Your task to perform on an android device: Show the shopping cart on bestbuy. Add razer nari to the cart on bestbuy Image 0: 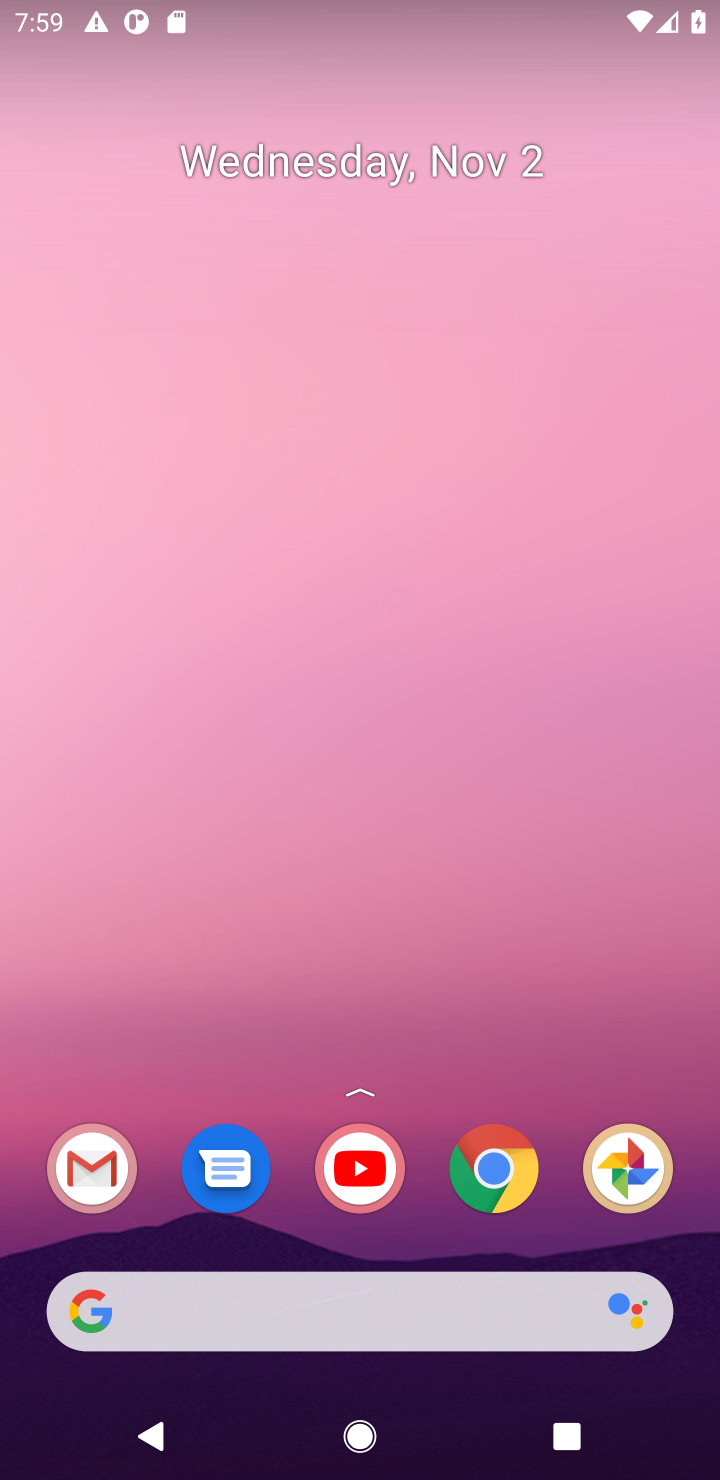
Step 0: click (497, 1168)
Your task to perform on an android device: Show the shopping cart on bestbuy. Add razer nari to the cart on bestbuy Image 1: 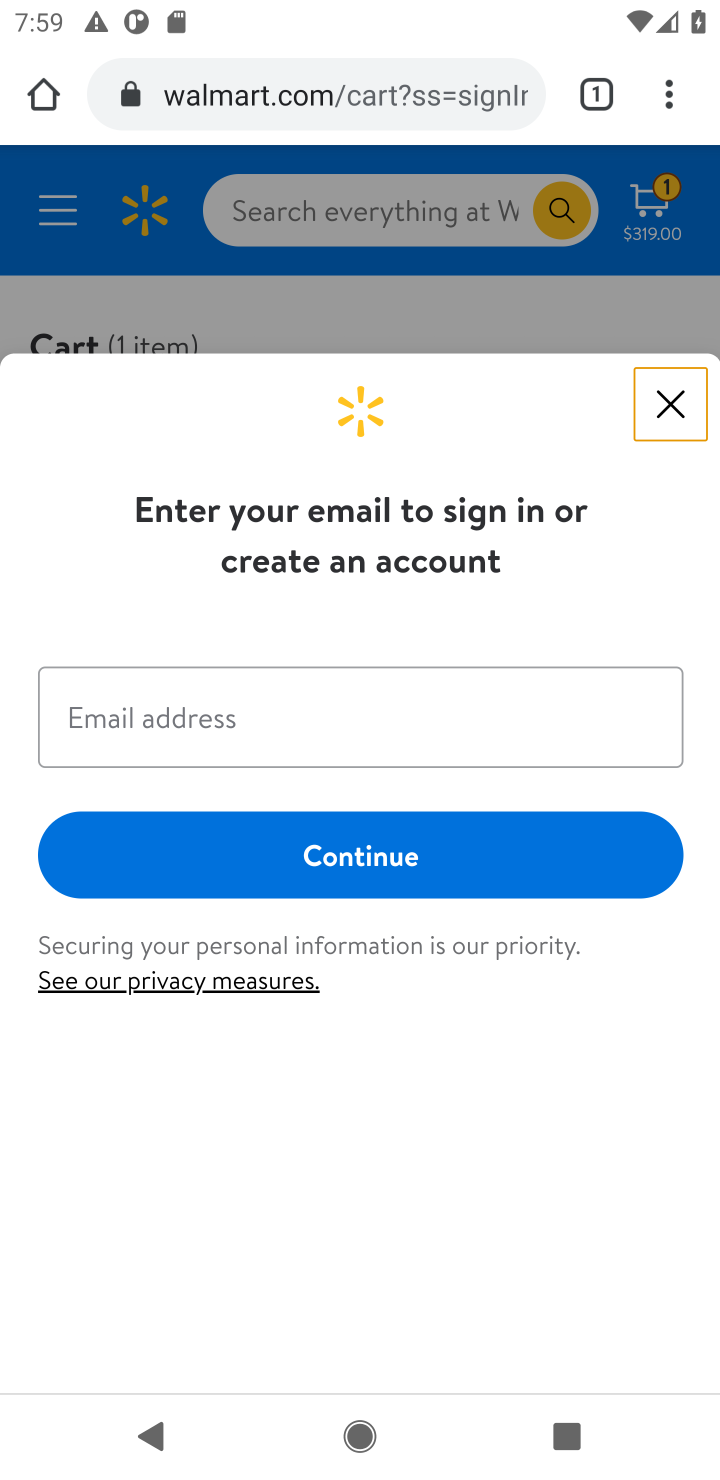
Step 1: click (464, 111)
Your task to perform on an android device: Show the shopping cart on bestbuy. Add razer nari to the cart on bestbuy Image 2: 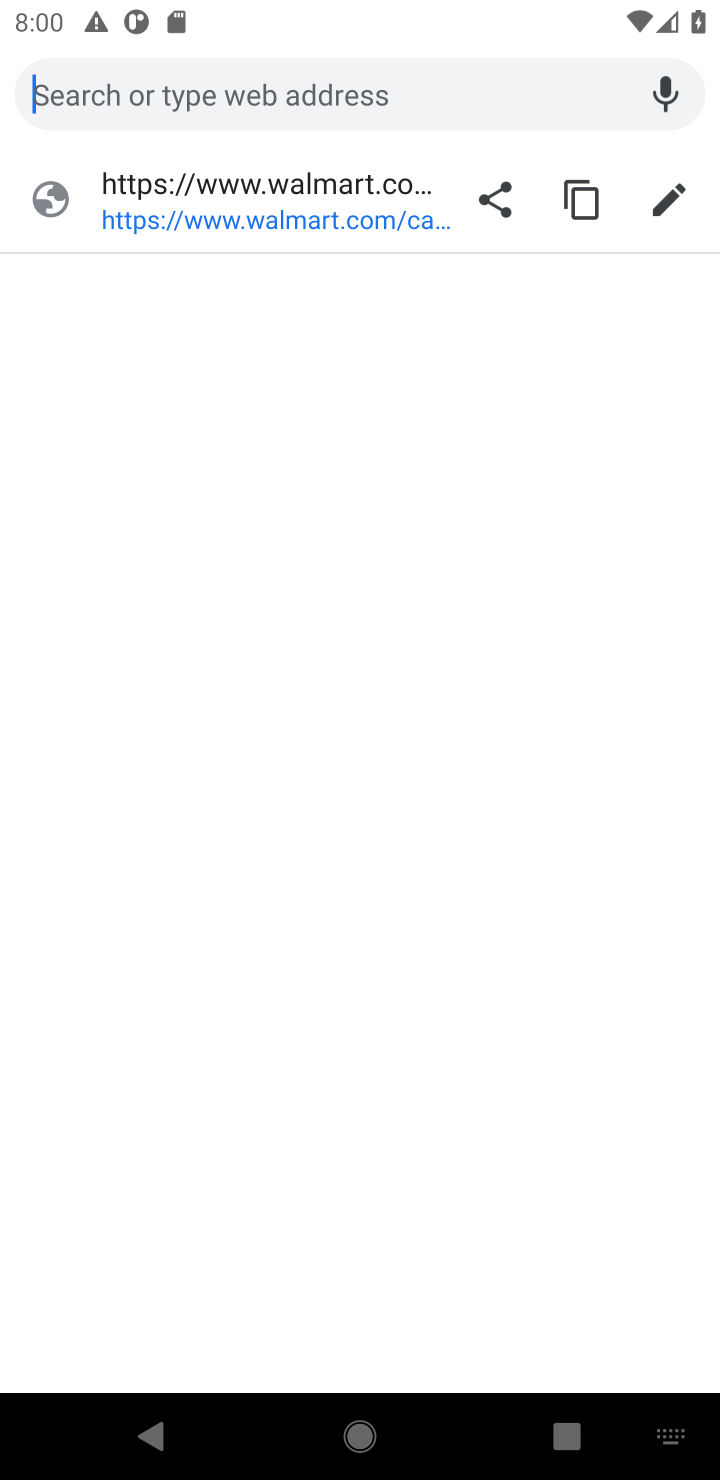
Step 2: type "bestbuy"
Your task to perform on an android device: Show the shopping cart on bestbuy. Add razer nari to the cart on bestbuy Image 3: 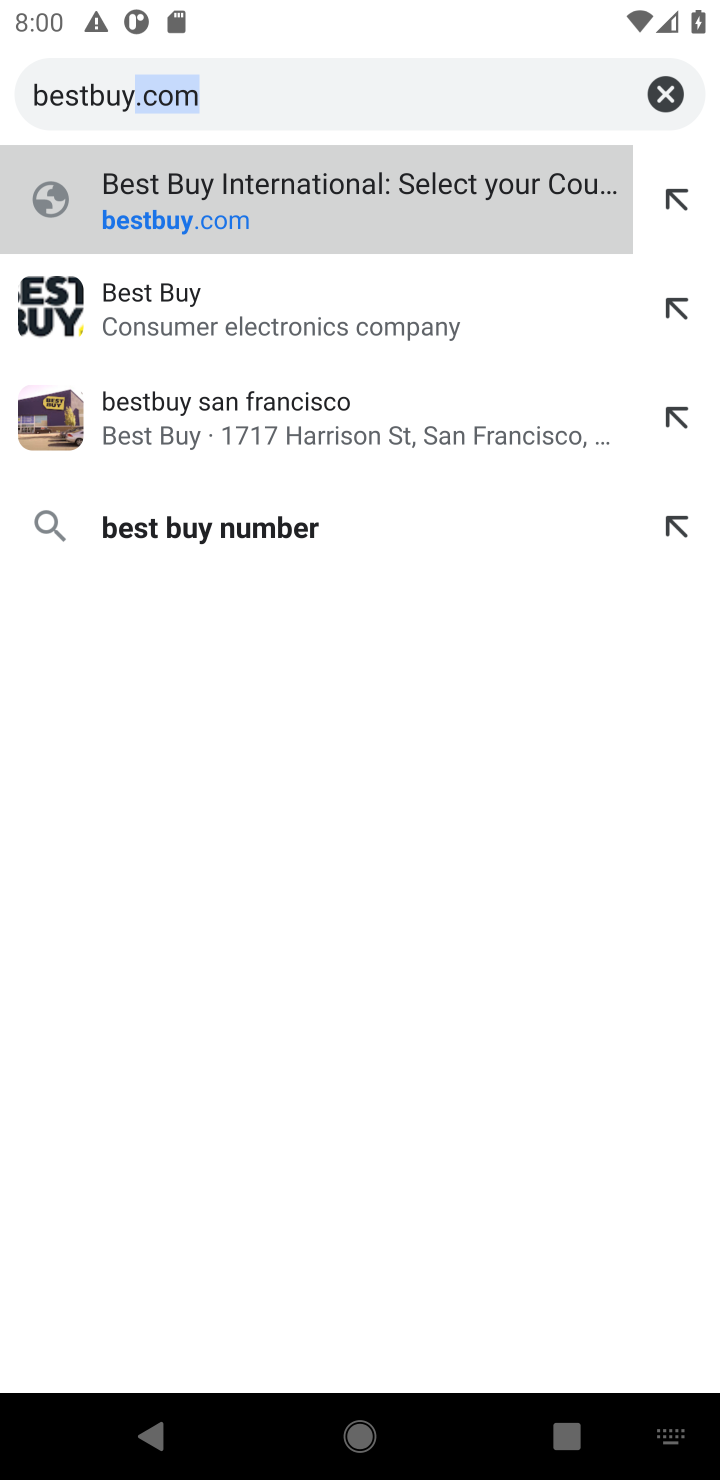
Step 3: click (348, 328)
Your task to perform on an android device: Show the shopping cart on bestbuy. Add razer nari to the cart on bestbuy Image 4: 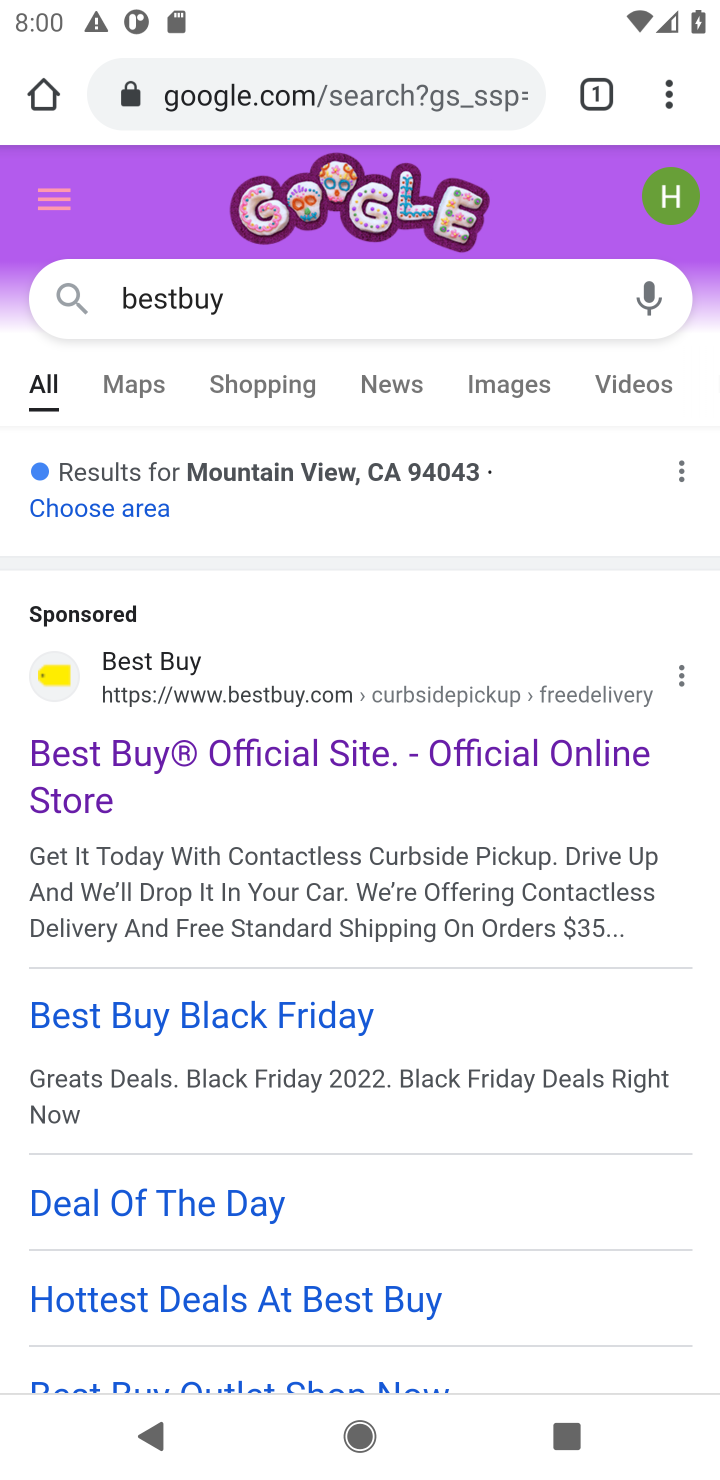
Step 4: drag from (387, 1259) to (444, 640)
Your task to perform on an android device: Show the shopping cart on bestbuy. Add razer nari to the cart on bestbuy Image 5: 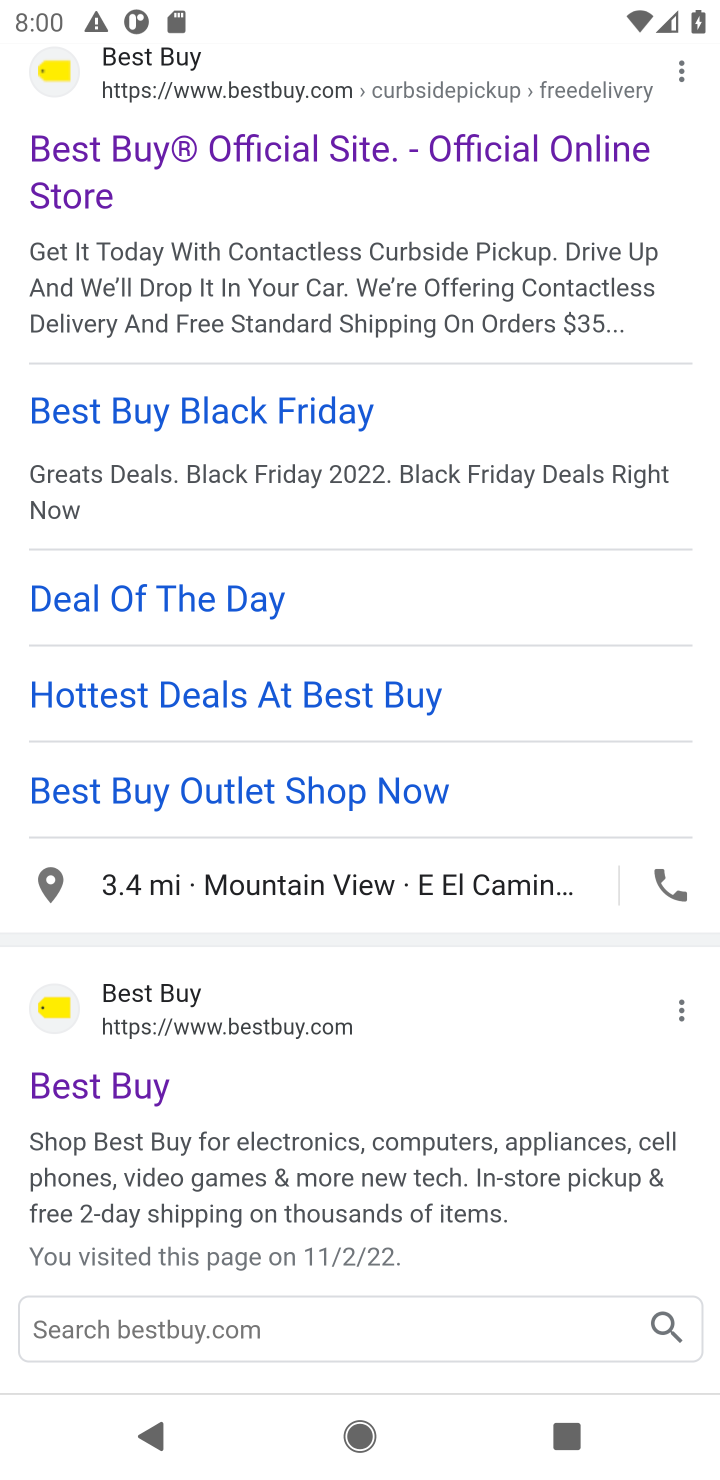
Step 5: click (268, 1063)
Your task to perform on an android device: Show the shopping cart on bestbuy. Add razer nari to the cart on bestbuy Image 6: 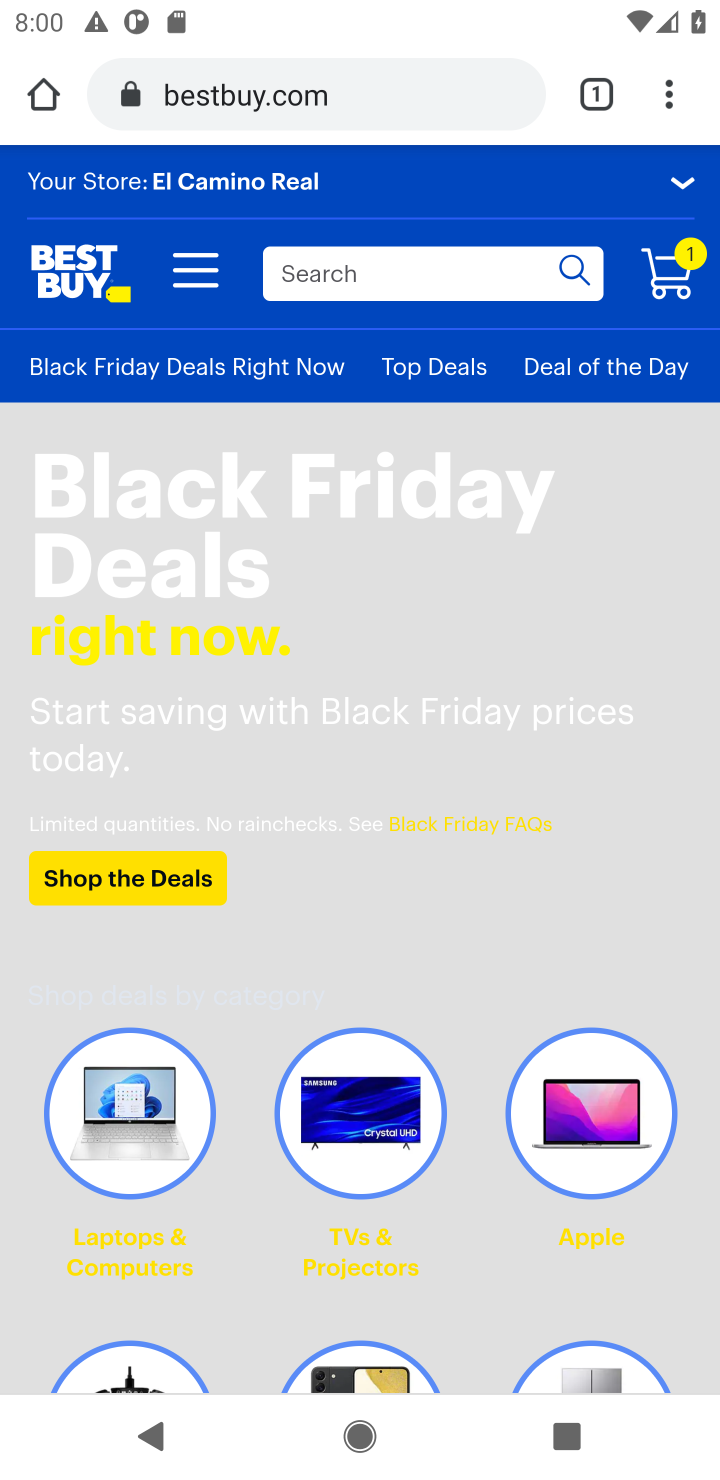
Step 6: click (674, 288)
Your task to perform on an android device: Show the shopping cart on bestbuy. Add razer nari to the cart on bestbuy Image 7: 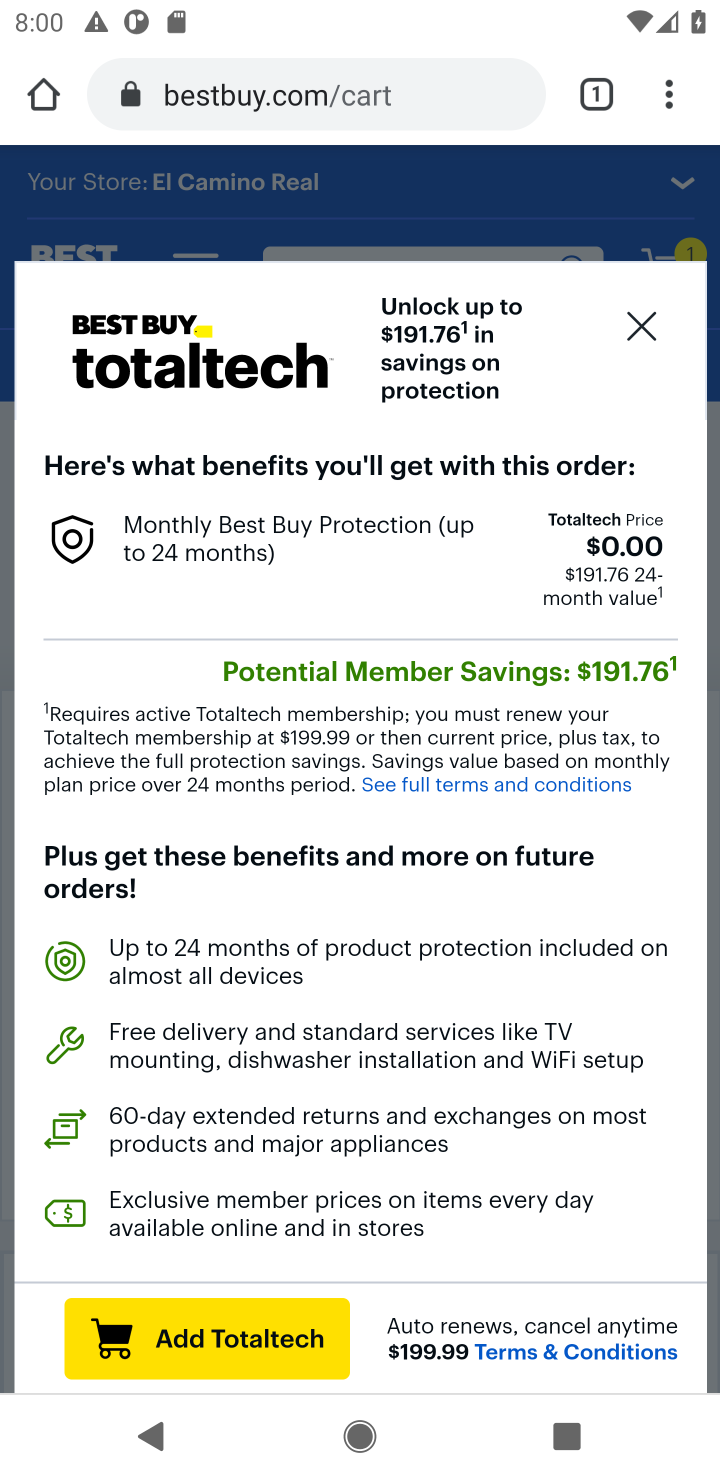
Step 7: click (640, 329)
Your task to perform on an android device: Show the shopping cart on bestbuy. Add razer nari to the cart on bestbuy Image 8: 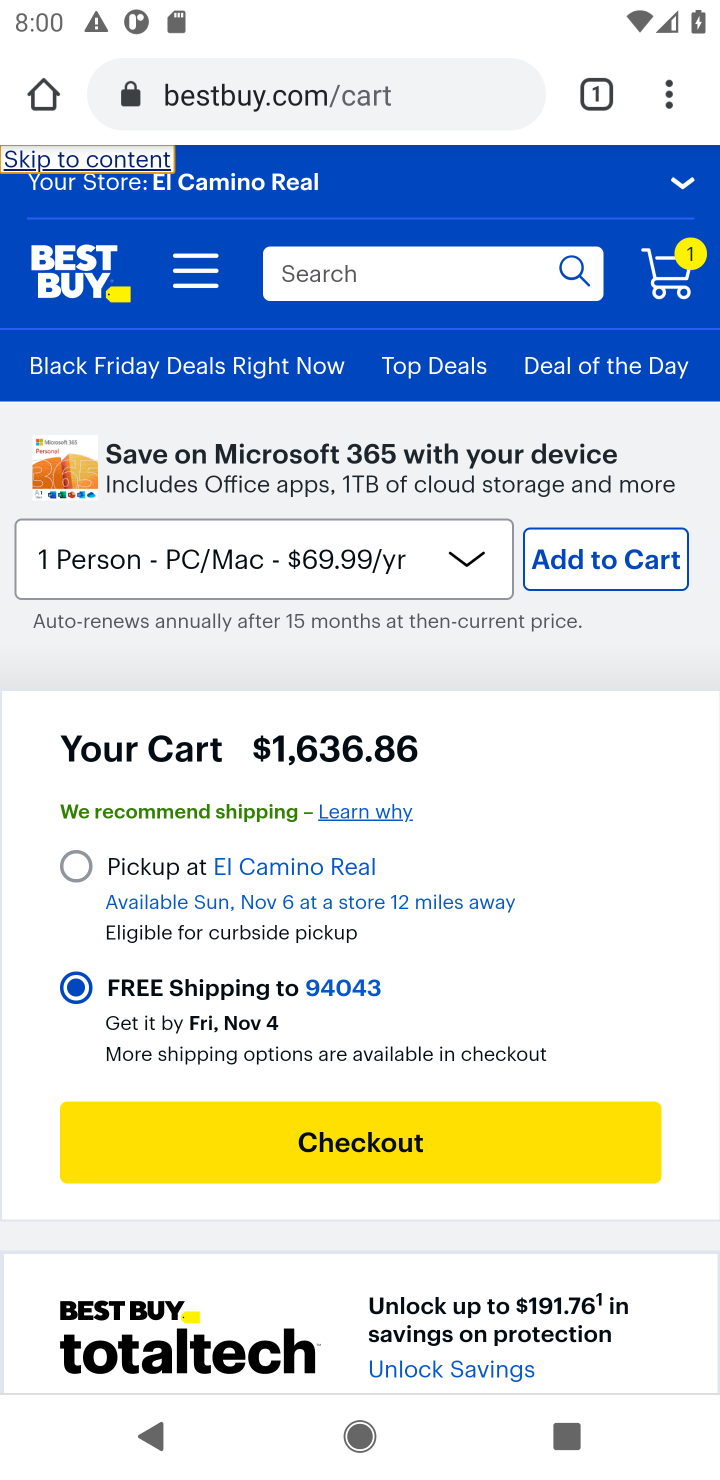
Step 8: click (460, 271)
Your task to perform on an android device: Show the shopping cart on bestbuy. Add razer nari to the cart on bestbuy Image 9: 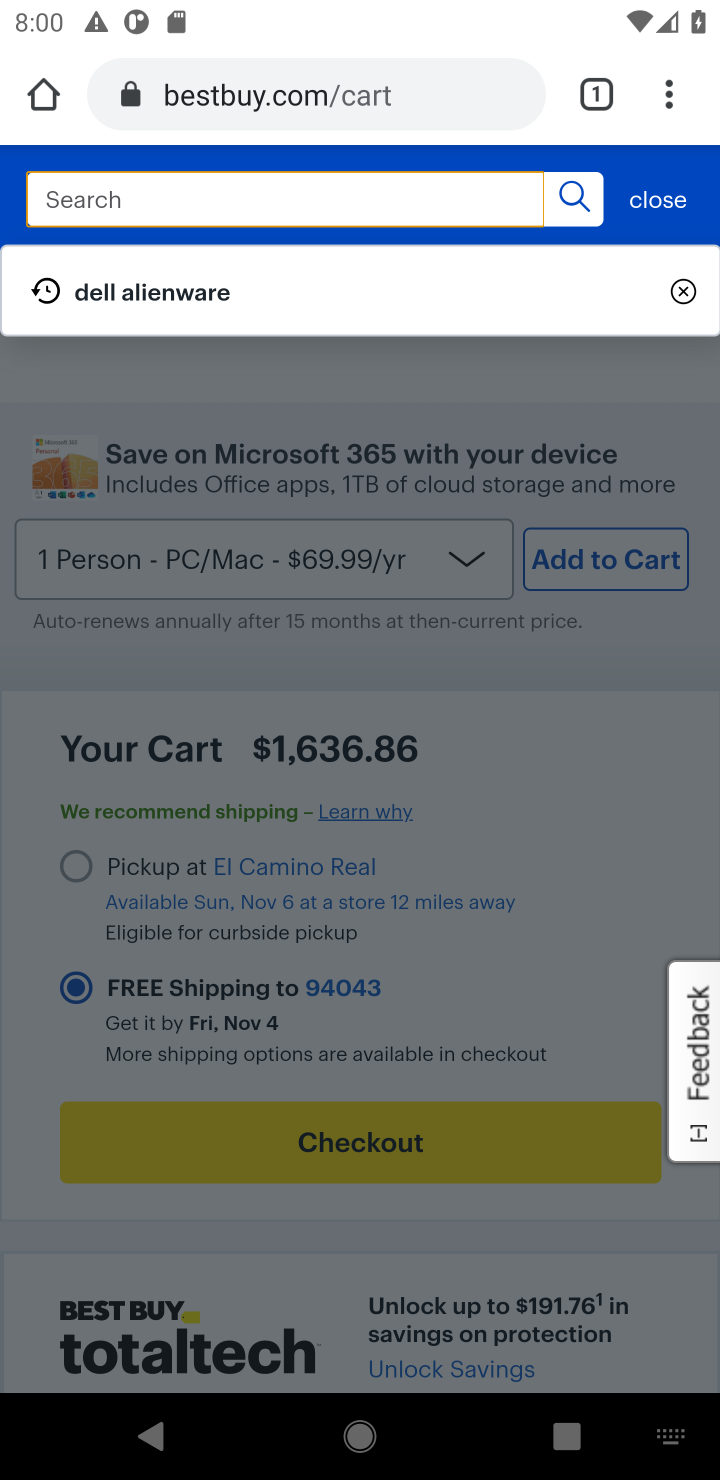
Step 9: type "razer nari"
Your task to perform on an android device: Show the shopping cart on bestbuy. Add razer nari to the cart on bestbuy Image 10: 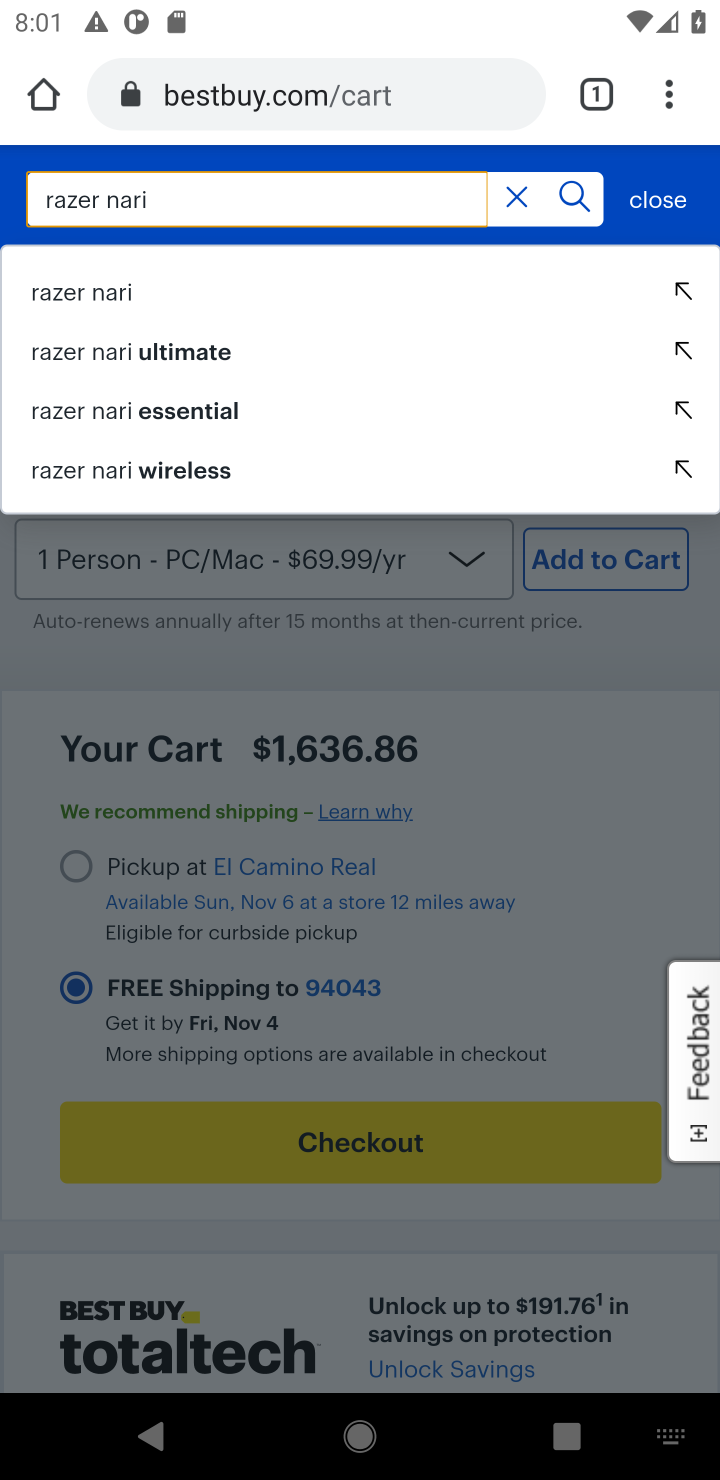
Step 10: click (107, 300)
Your task to perform on an android device: Show the shopping cart on bestbuy. Add razer nari to the cart on bestbuy Image 11: 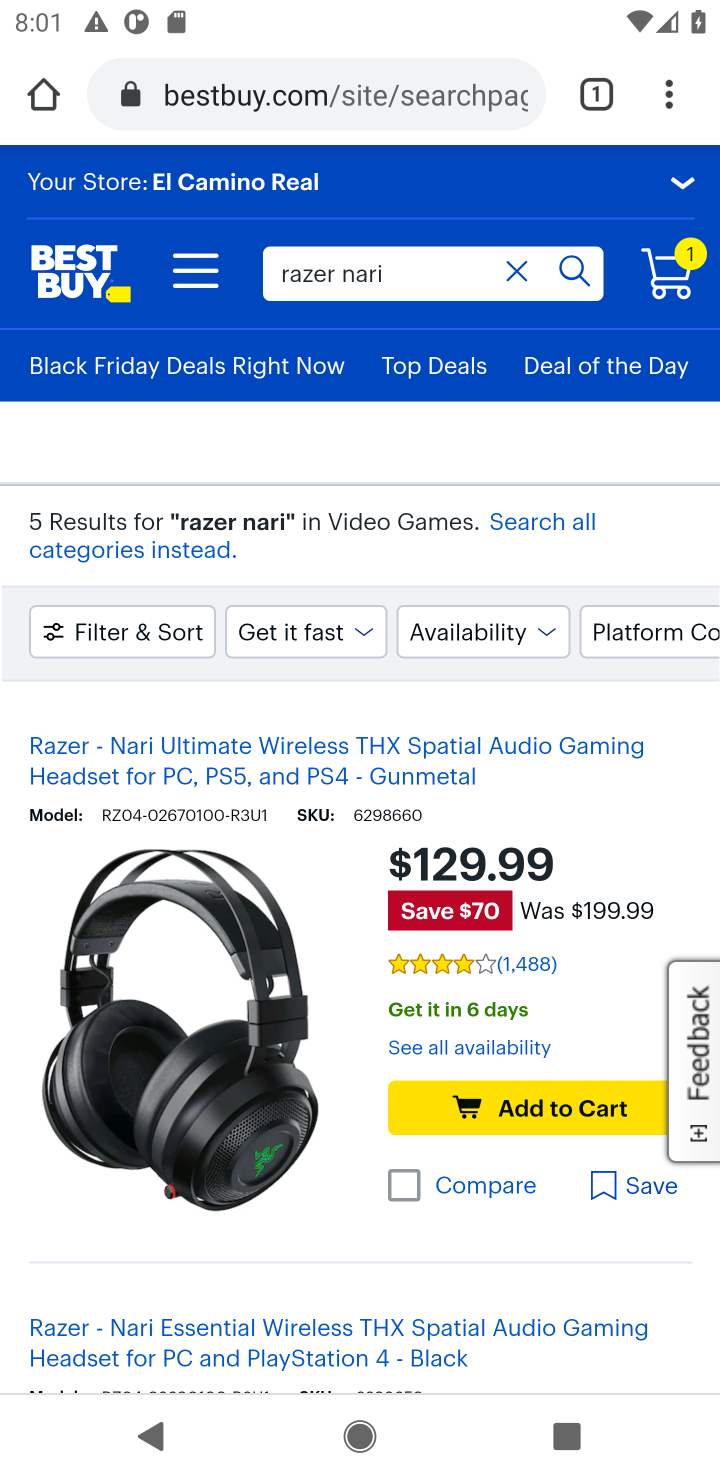
Step 11: click (544, 1105)
Your task to perform on an android device: Show the shopping cart on bestbuy. Add razer nari to the cart on bestbuy Image 12: 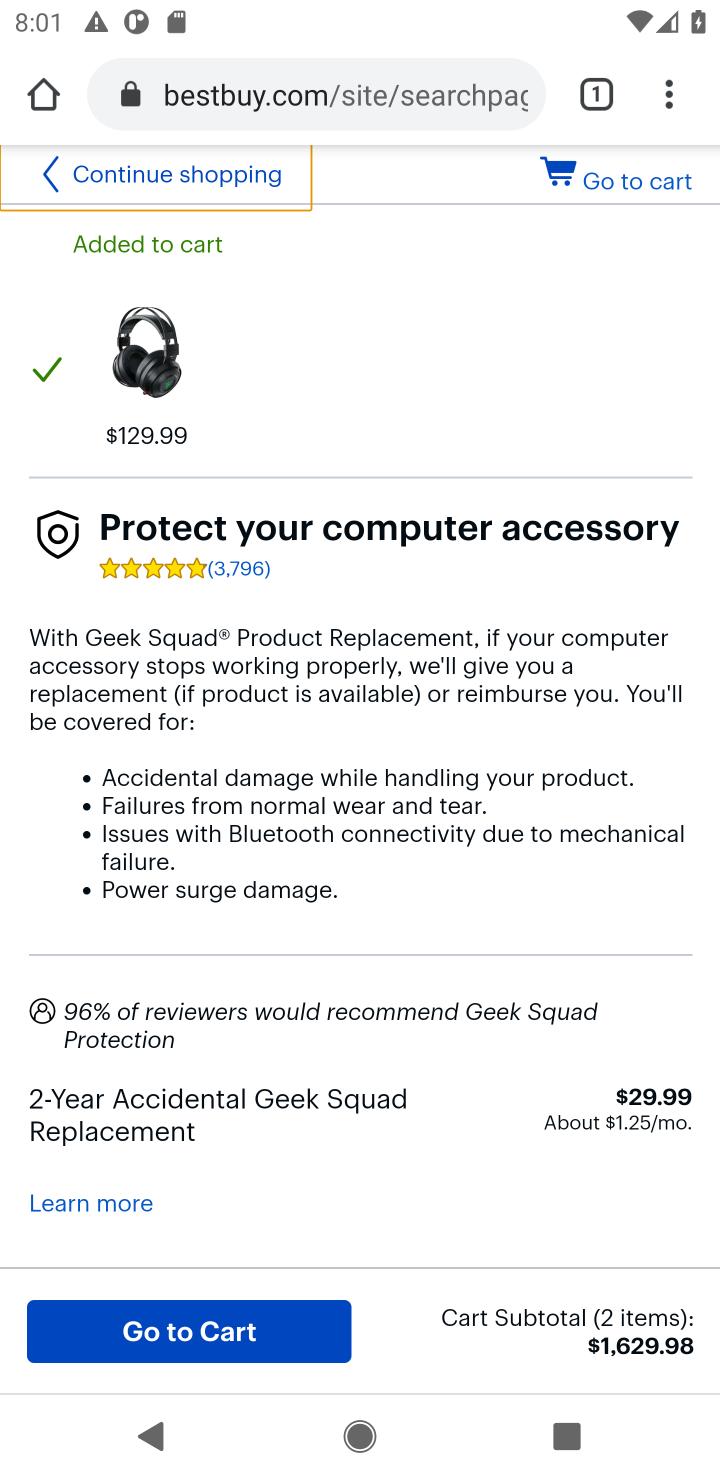
Step 12: click (249, 1346)
Your task to perform on an android device: Show the shopping cart on bestbuy. Add razer nari to the cart on bestbuy Image 13: 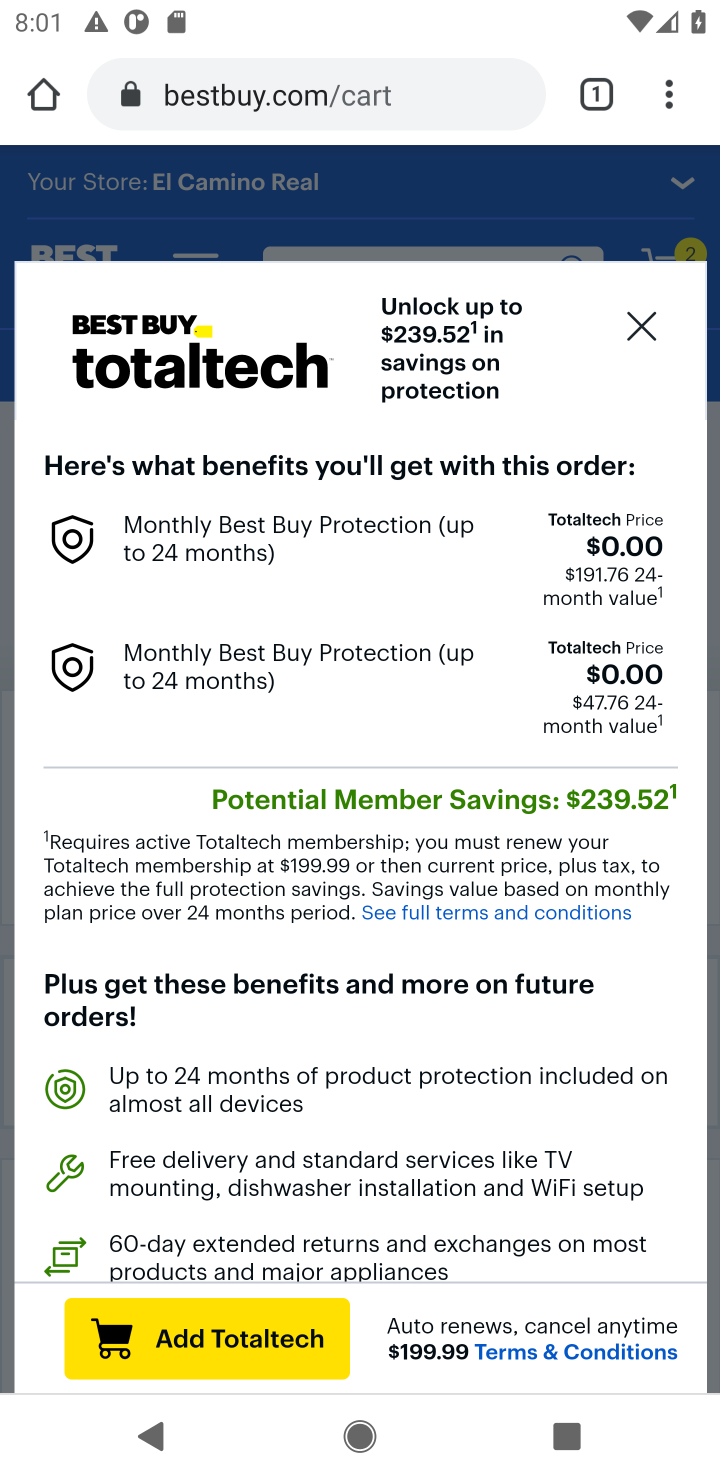
Step 13: click (646, 319)
Your task to perform on an android device: Show the shopping cart on bestbuy. Add razer nari to the cart on bestbuy Image 14: 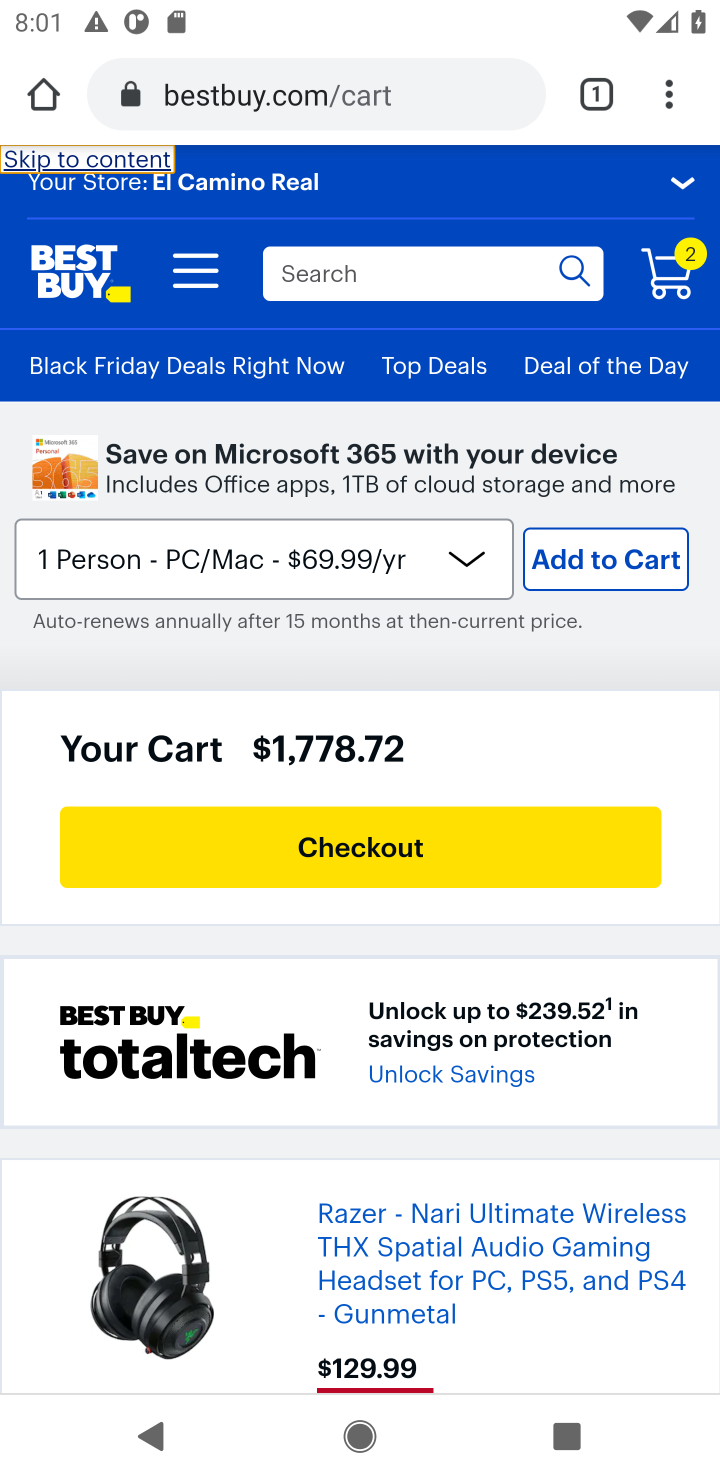
Step 14: task complete